Your task to perform on an android device: set default search engine in the chrome app Image 0: 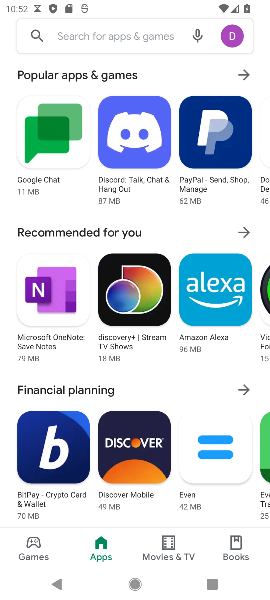
Step 0: press home button
Your task to perform on an android device: set default search engine in the chrome app Image 1: 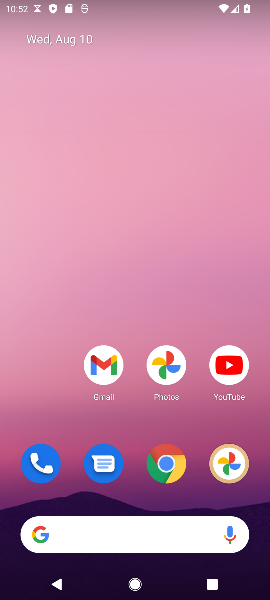
Step 1: click (160, 468)
Your task to perform on an android device: set default search engine in the chrome app Image 2: 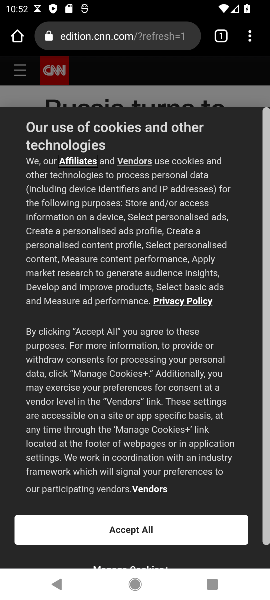
Step 2: click (248, 35)
Your task to perform on an android device: set default search engine in the chrome app Image 3: 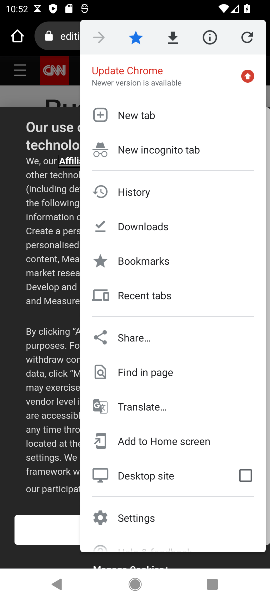
Step 3: click (148, 518)
Your task to perform on an android device: set default search engine in the chrome app Image 4: 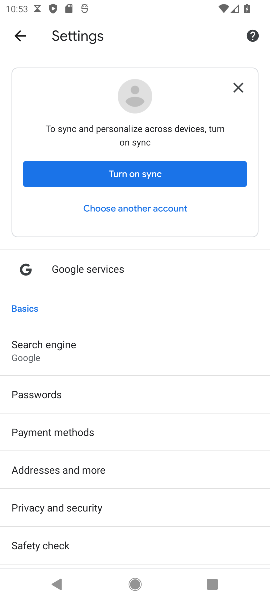
Step 4: task complete